Your task to perform on an android device: Open Google Maps Image 0: 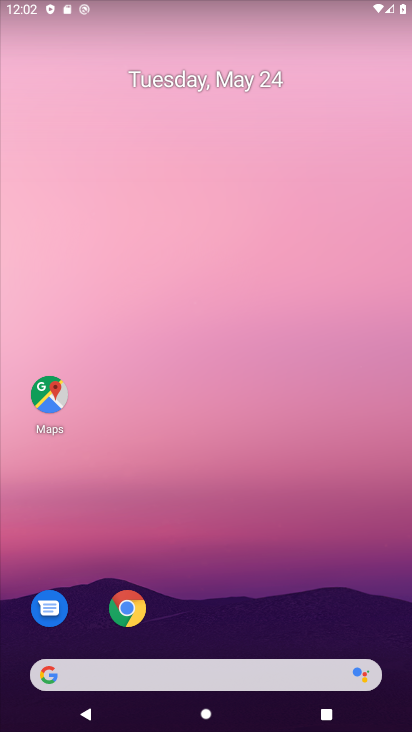
Step 0: drag from (283, 699) to (185, 53)
Your task to perform on an android device: Open Google Maps Image 1: 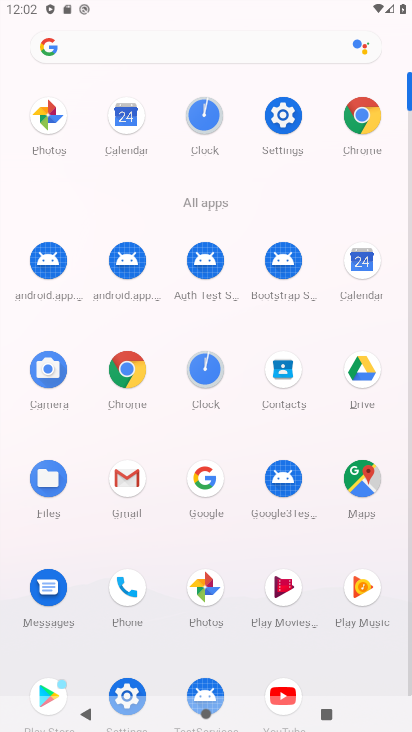
Step 1: click (374, 474)
Your task to perform on an android device: Open Google Maps Image 2: 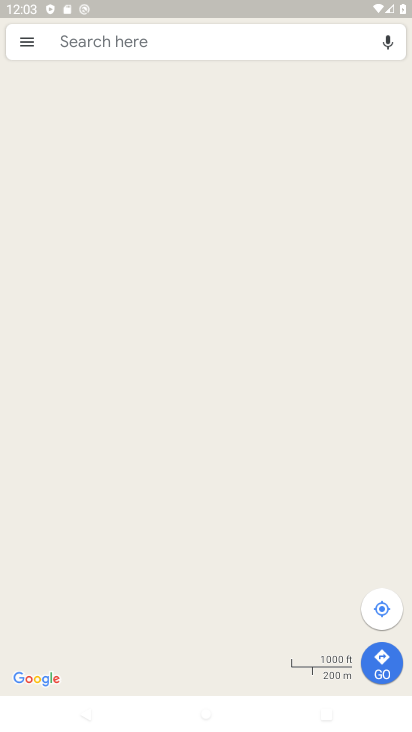
Step 2: click (384, 611)
Your task to perform on an android device: Open Google Maps Image 3: 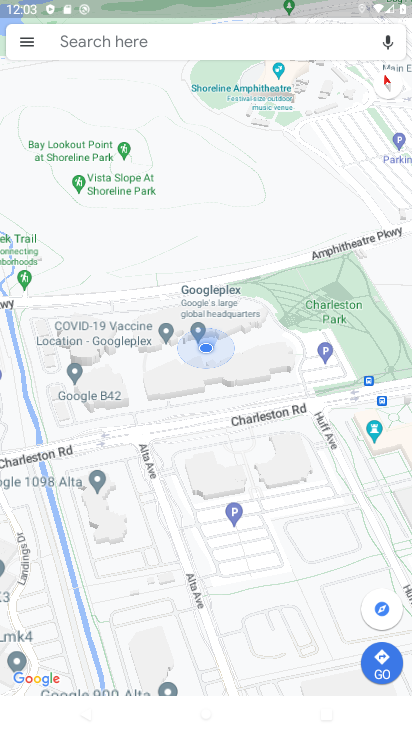
Step 3: task complete